Your task to perform on an android device: turn on priority inbox in the gmail app Image 0: 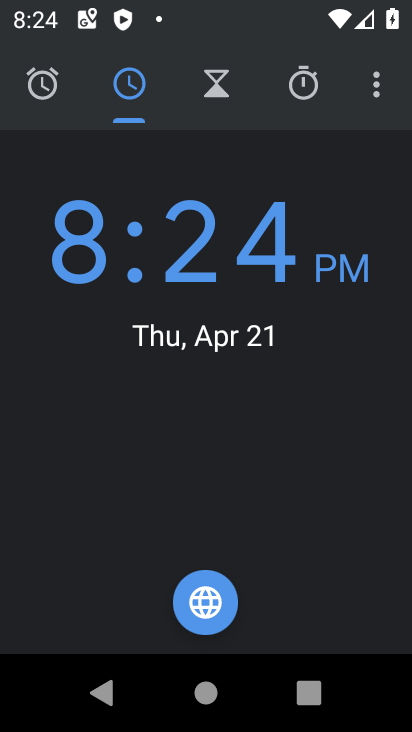
Step 0: press home button
Your task to perform on an android device: turn on priority inbox in the gmail app Image 1: 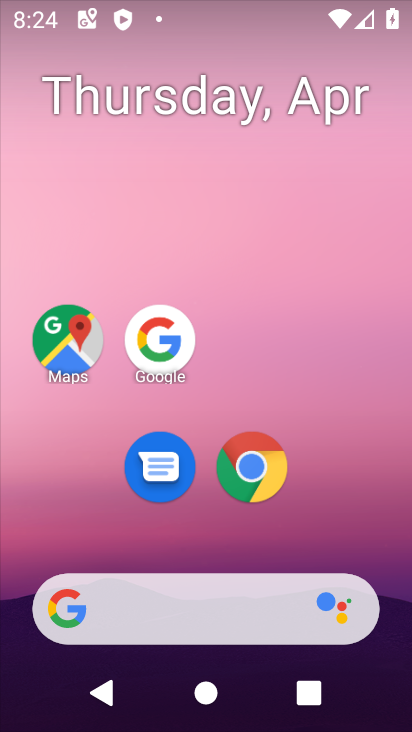
Step 1: drag from (219, 607) to (208, 10)
Your task to perform on an android device: turn on priority inbox in the gmail app Image 2: 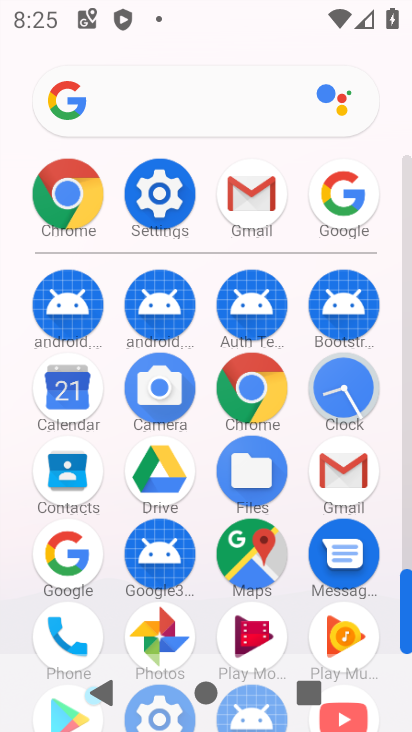
Step 2: click (252, 185)
Your task to perform on an android device: turn on priority inbox in the gmail app Image 3: 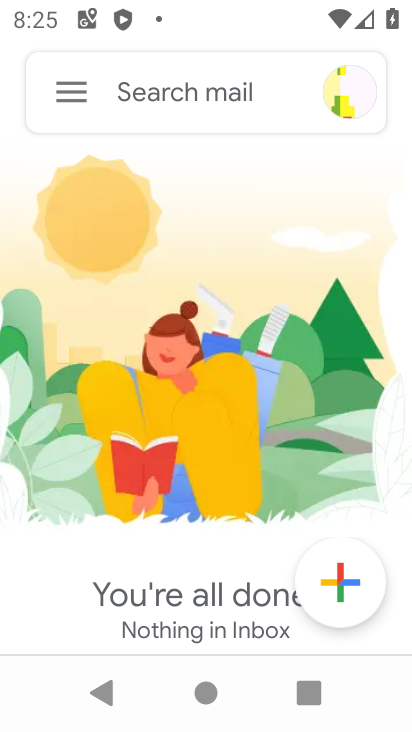
Step 3: click (84, 95)
Your task to perform on an android device: turn on priority inbox in the gmail app Image 4: 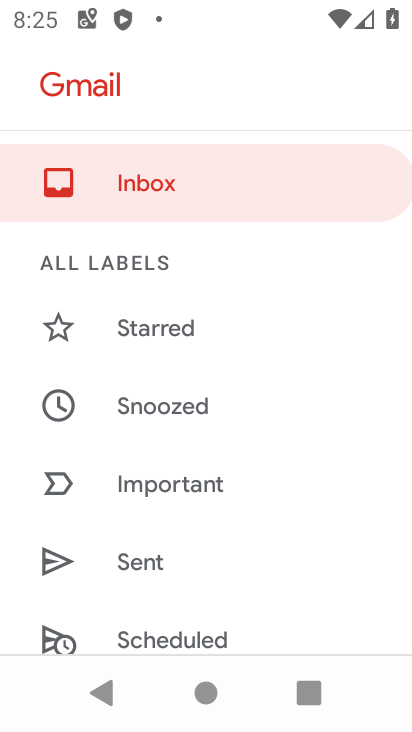
Step 4: drag from (190, 576) to (133, 39)
Your task to perform on an android device: turn on priority inbox in the gmail app Image 5: 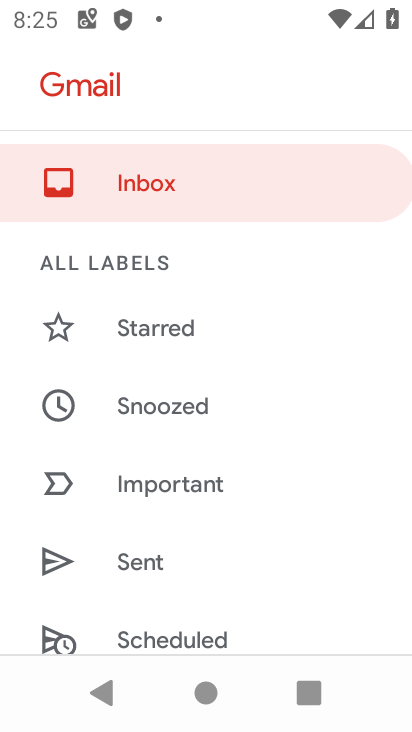
Step 5: drag from (241, 588) to (211, 91)
Your task to perform on an android device: turn on priority inbox in the gmail app Image 6: 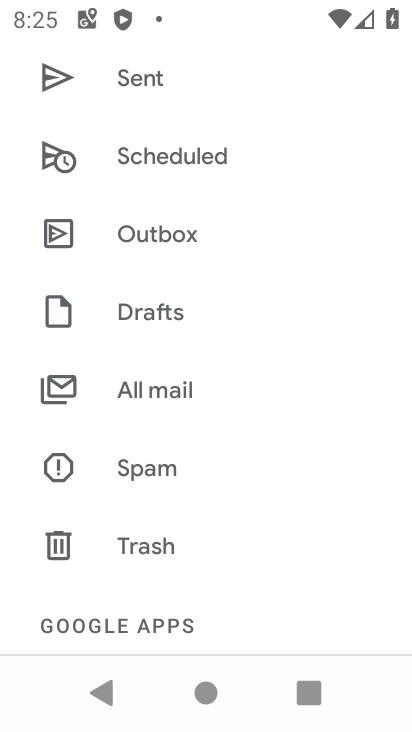
Step 6: drag from (202, 590) to (168, 121)
Your task to perform on an android device: turn on priority inbox in the gmail app Image 7: 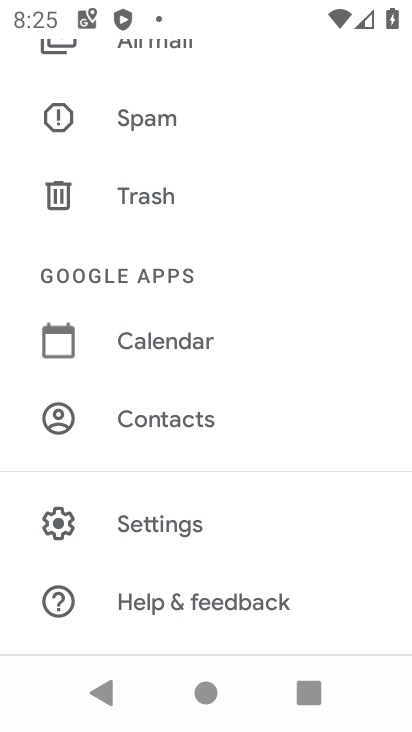
Step 7: click (200, 520)
Your task to perform on an android device: turn on priority inbox in the gmail app Image 8: 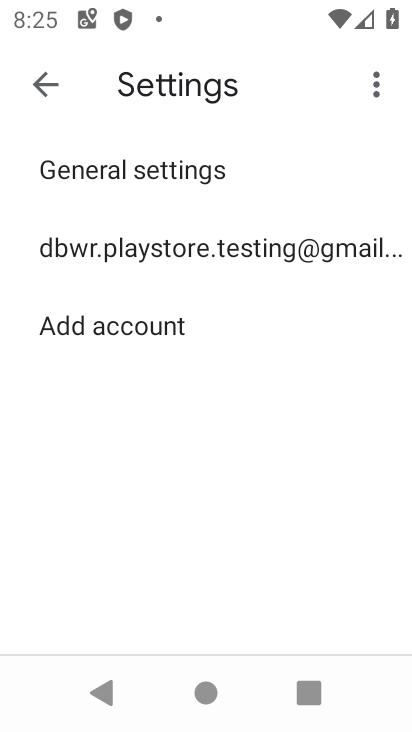
Step 8: click (214, 241)
Your task to perform on an android device: turn on priority inbox in the gmail app Image 9: 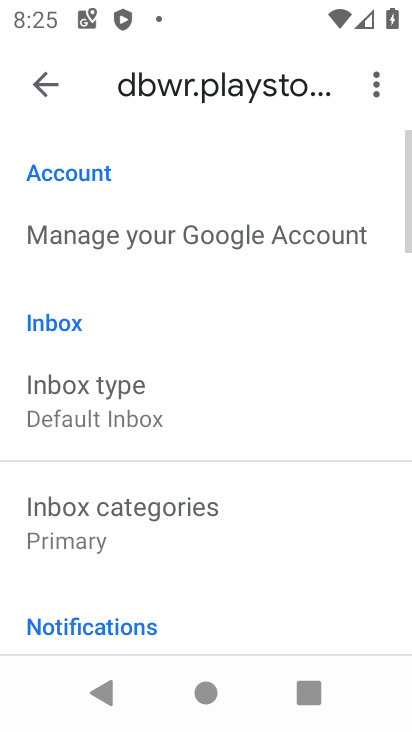
Step 9: click (128, 385)
Your task to perform on an android device: turn on priority inbox in the gmail app Image 10: 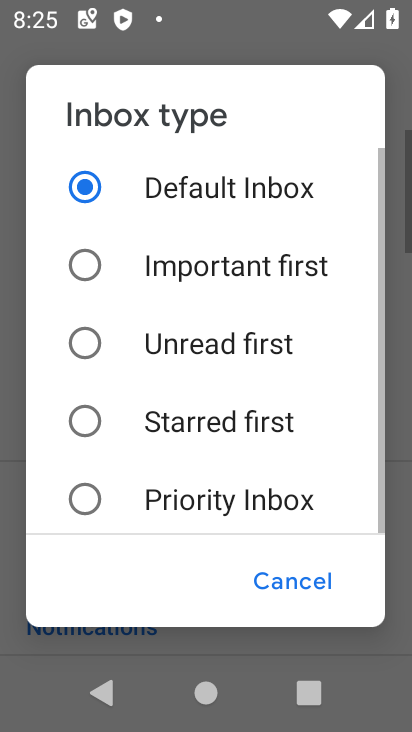
Step 10: click (167, 499)
Your task to perform on an android device: turn on priority inbox in the gmail app Image 11: 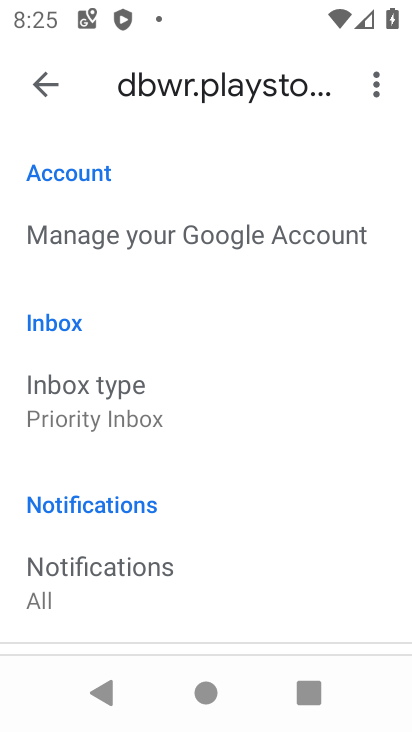
Step 11: task complete